Your task to perform on an android device: Go to Android settings Image 0: 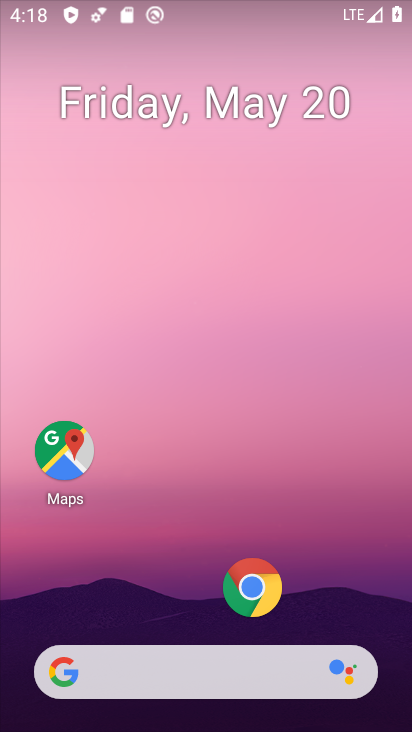
Step 0: drag from (154, 608) to (231, 46)
Your task to perform on an android device: Go to Android settings Image 1: 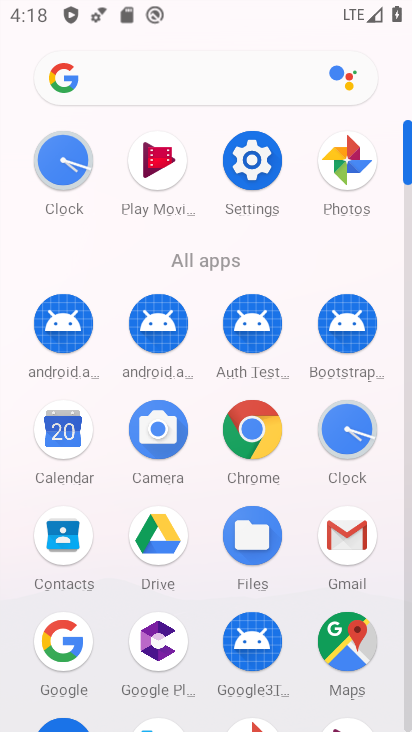
Step 1: click (261, 169)
Your task to perform on an android device: Go to Android settings Image 2: 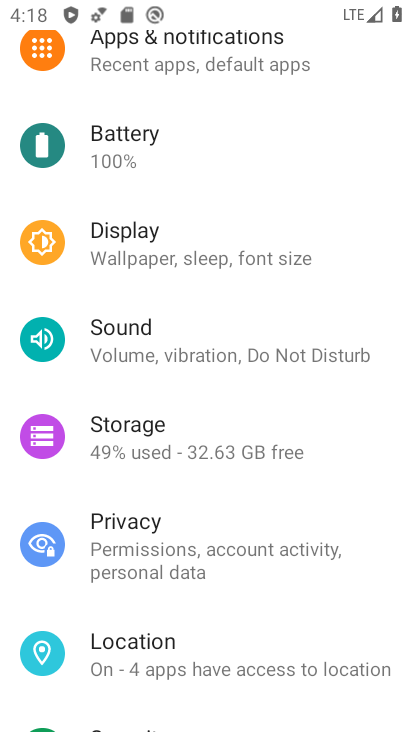
Step 2: task complete